Your task to perform on an android device: Add logitech g pro to the cart on ebay.com, then select checkout. Image 0: 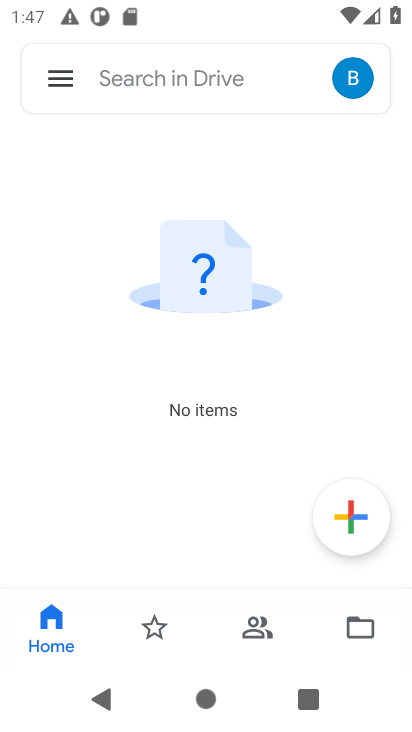
Step 0: press home button
Your task to perform on an android device: Add logitech g pro to the cart on ebay.com, then select checkout. Image 1: 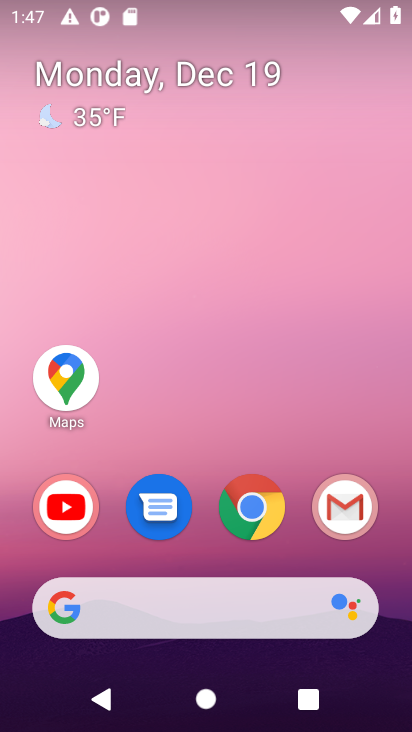
Step 1: click (256, 507)
Your task to perform on an android device: Add logitech g pro to the cart on ebay.com, then select checkout. Image 2: 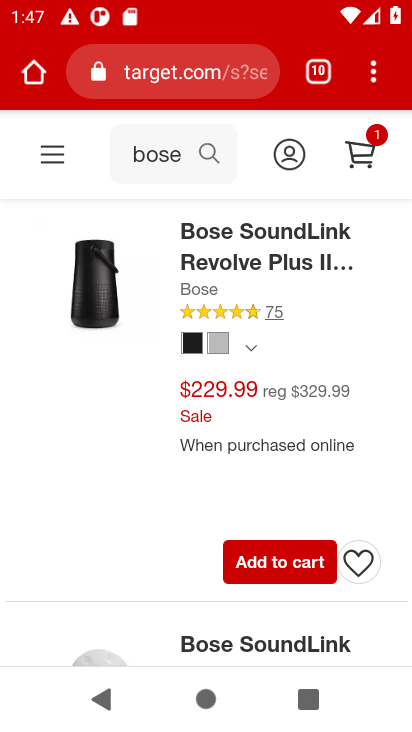
Step 2: click (135, 72)
Your task to perform on an android device: Add logitech g pro to the cart on ebay.com, then select checkout. Image 3: 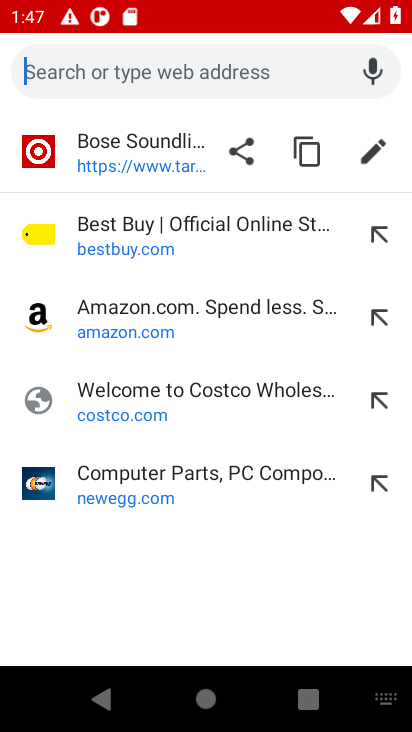
Step 3: type "ebay.com"
Your task to perform on an android device: Add logitech g pro to the cart on ebay.com, then select checkout. Image 4: 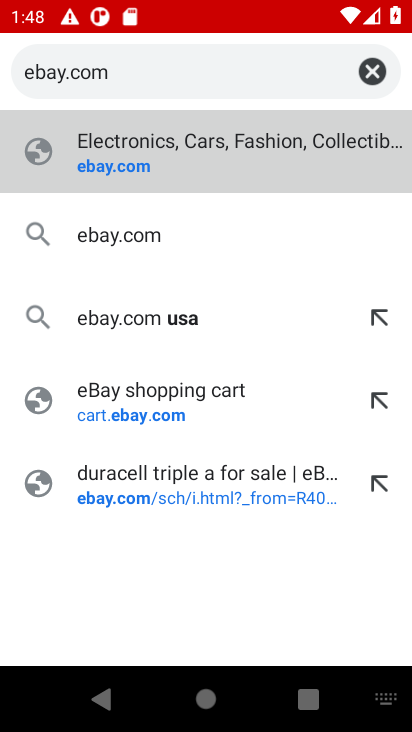
Step 4: click (116, 173)
Your task to perform on an android device: Add logitech g pro to the cart on ebay.com, then select checkout. Image 5: 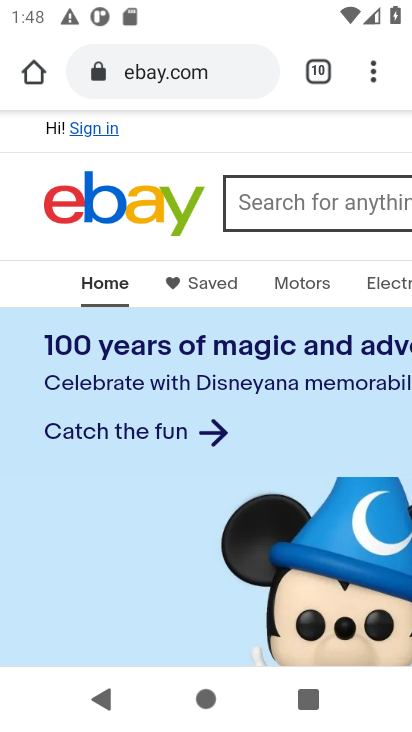
Step 5: click (260, 208)
Your task to perform on an android device: Add logitech g pro to the cart on ebay.com, then select checkout. Image 6: 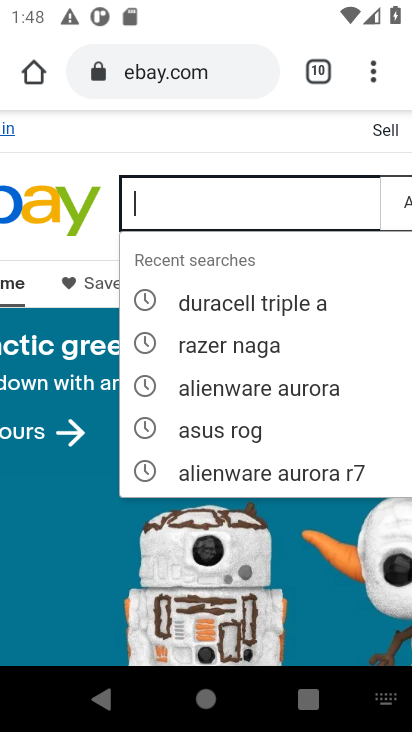
Step 6: type "logitech g pro"
Your task to perform on an android device: Add logitech g pro to the cart on ebay.com, then select checkout. Image 7: 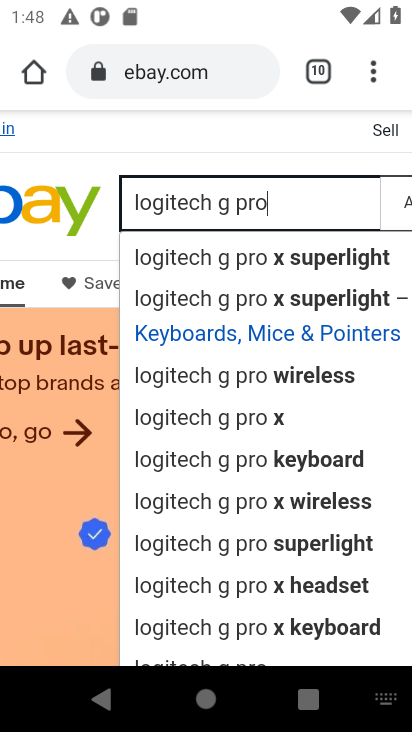
Step 7: drag from (338, 209) to (20, 191)
Your task to perform on an android device: Add logitech g pro to the cart on ebay.com, then select checkout. Image 8: 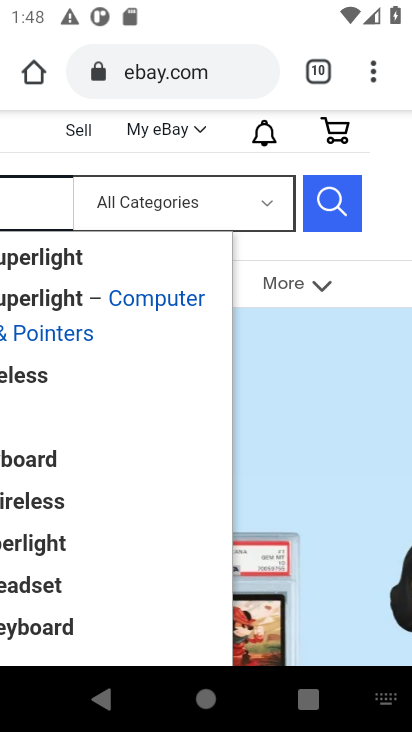
Step 8: click (335, 209)
Your task to perform on an android device: Add logitech g pro to the cart on ebay.com, then select checkout. Image 9: 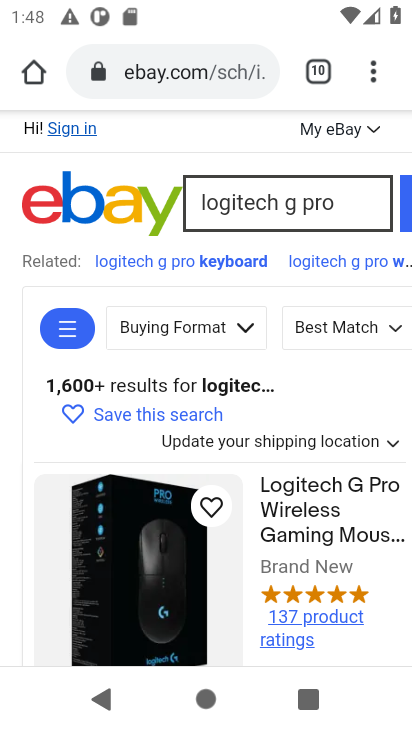
Step 9: drag from (249, 558) to (186, 345)
Your task to perform on an android device: Add logitech g pro to the cart on ebay.com, then select checkout. Image 10: 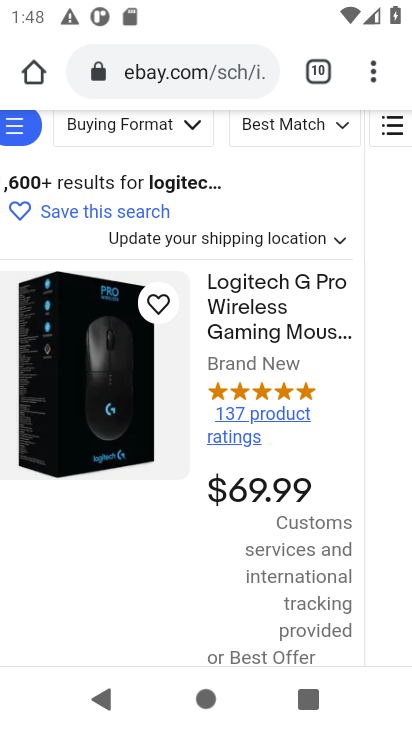
Step 10: click (244, 317)
Your task to perform on an android device: Add logitech g pro to the cart on ebay.com, then select checkout. Image 11: 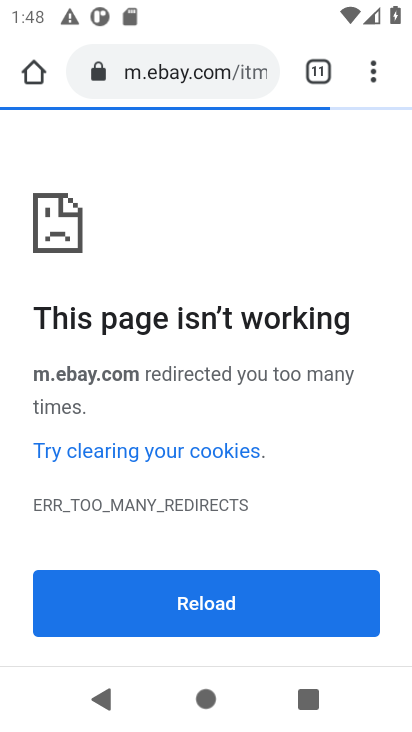
Step 11: task complete